Your task to perform on an android device: turn off translation in the chrome app Image 0: 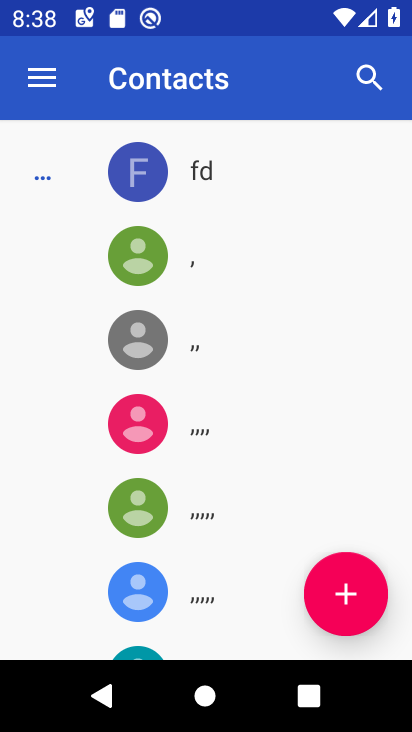
Step 0: press home button
Your task to perform on an android device: turn off translation in the chrome app Image 1: 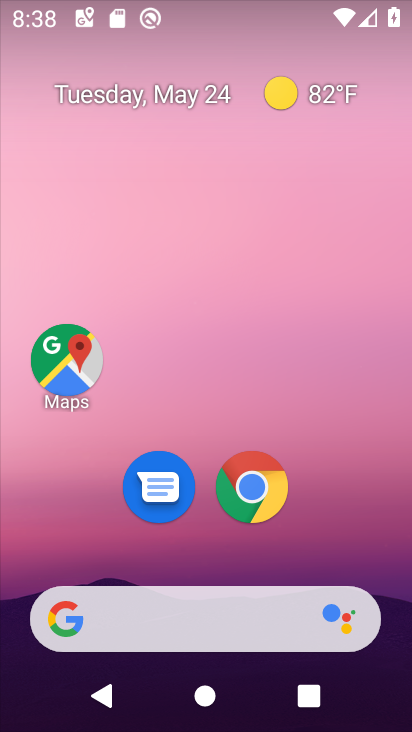
Step 1: drag from (368, 537) to (352, 206)
Your task to perform on an android device: turn off translation in the chrome app Image 2: 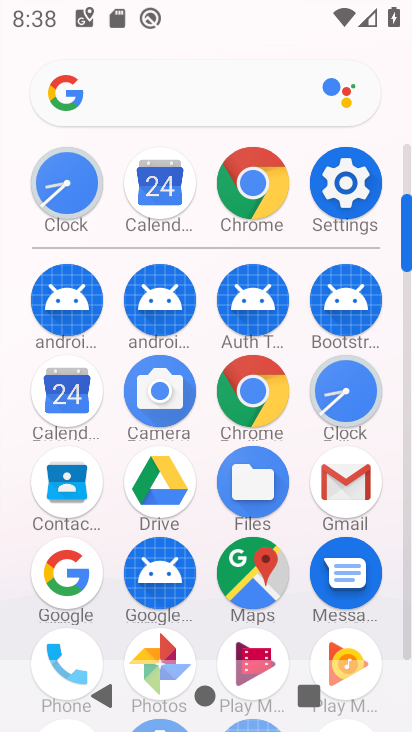
Step 2: click (235, 384)
Your task to perform on an android device: turn off translation in the chrome app Image 3: 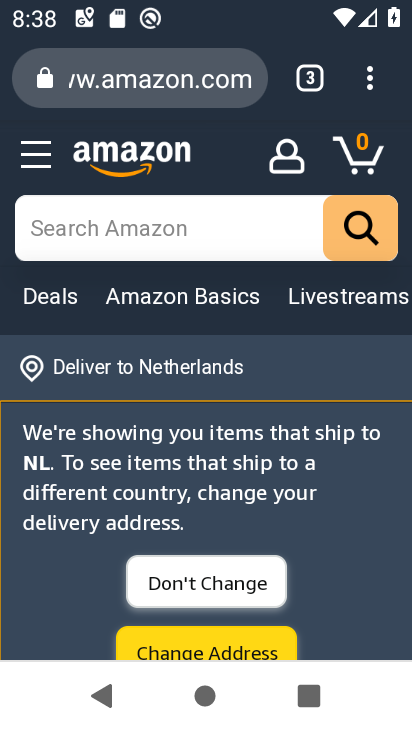
Step 3: drag from (364, 78) to (217, 563)
Your task to perform on an android device: turn off translation in the chrome app Image 4: 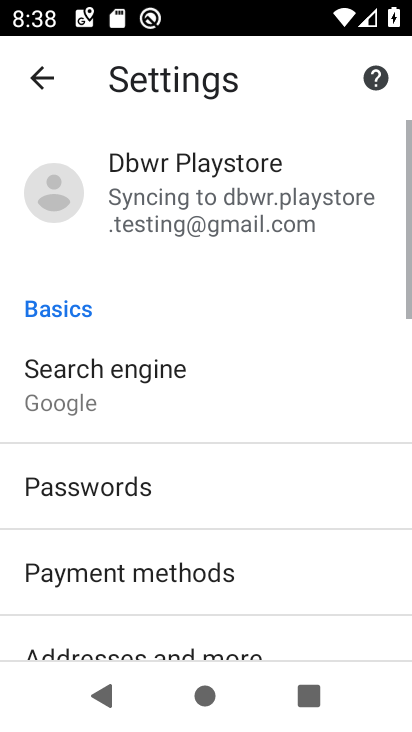
Step 4: drag from (250, 608) to (330, 195)
Your task to perform on an android device: turn off translation in the chrome app Image 5: 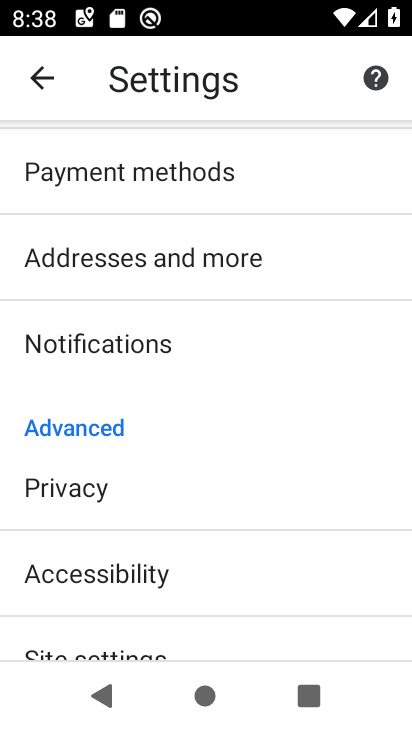
Step 5: drag from (259, 568) to (312, 194)
Your task to perform on an android device: turn off translation in the chrome app Image 6: 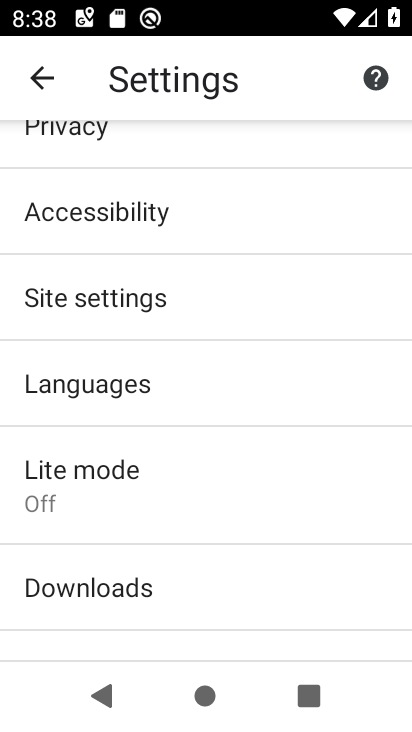
Step 6: click (162, 404)
Your task to perform on an android device: turn off translation in the chrome app Image 7: 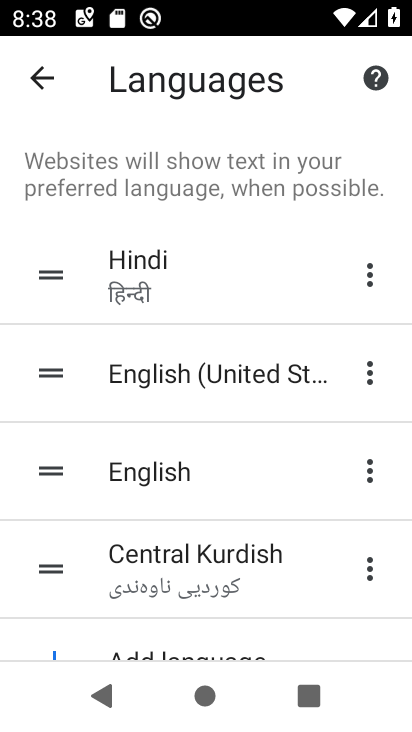
Step 7: drag from (208, 605) to (266, 266)
Your task to perform on an android device: turn off translation in the chrome app Image 8: 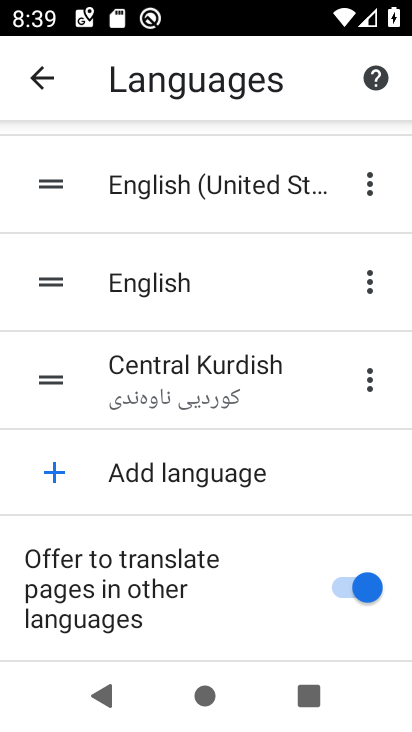
Step 8: click (345, 581)
Your task to perform on an android device: turn off translation in the chrome app Image 9: 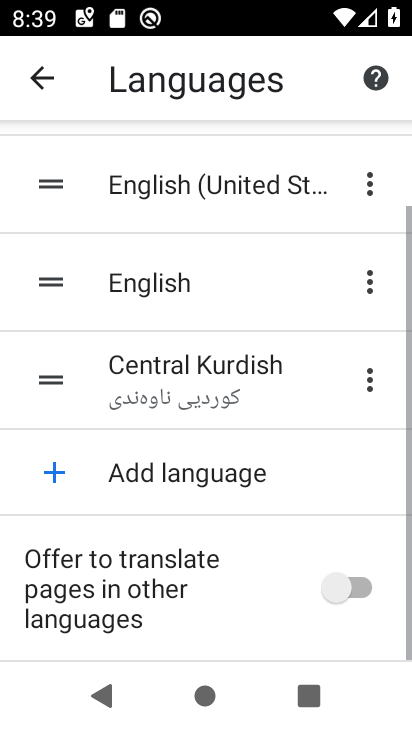
Step 9: task complete